Your task to perform on an android device: Go to ESPN.com Image 0: 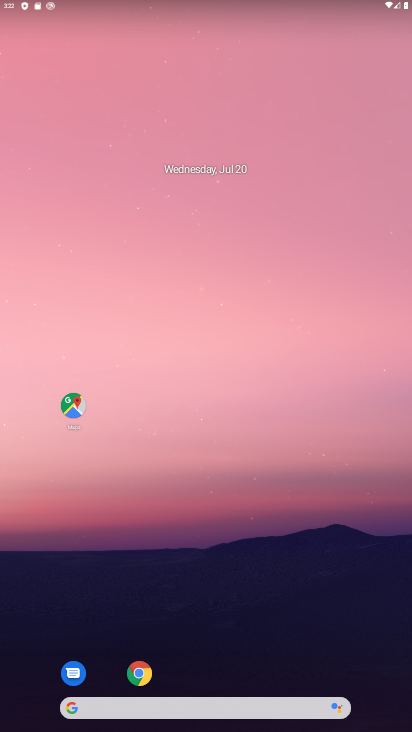
Step 0: click (219, 702)
Your task to perform on an android device: Go to ESPN.com Image 1: 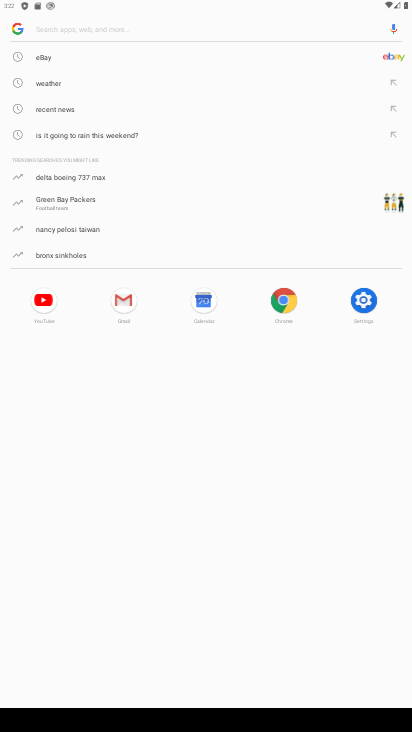
Step 1: type "ESPN.com"
Your task to perform on an android device: Go to ESPN.com Image 2: 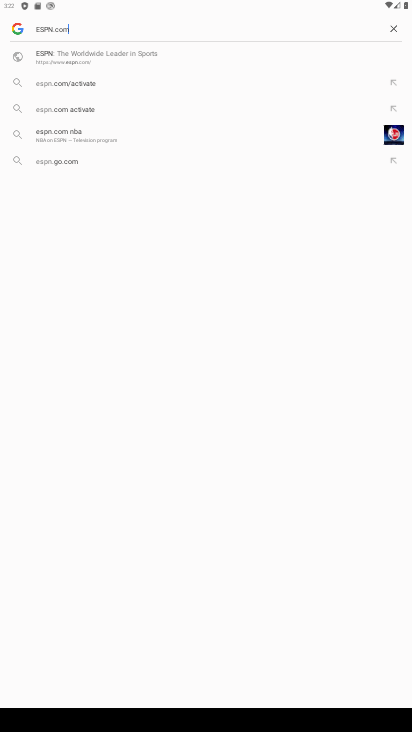
Step 2: press enter
Your task to perform on an android device: Go to ESPN.com Image 3: 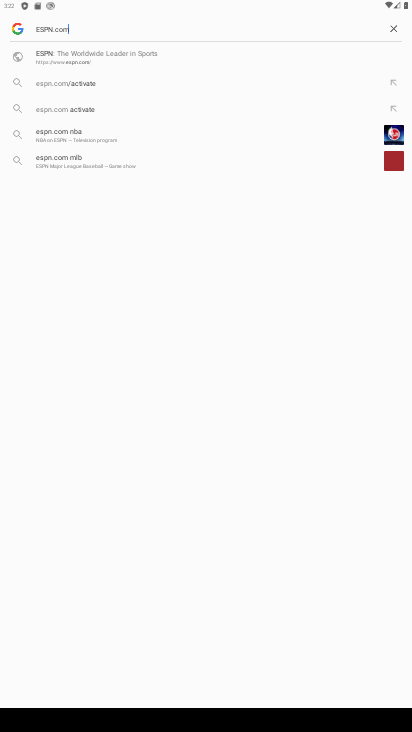
Step 3: type ""
Your task to perform on an android device: Go to ESPN.com Image 4: 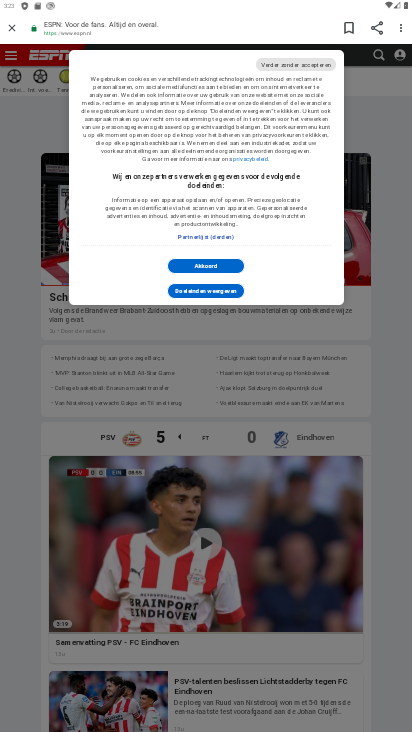
Step 4: task complete